Your task to perform on an android device: see tabs open on other devices in the chrome app Image 0: 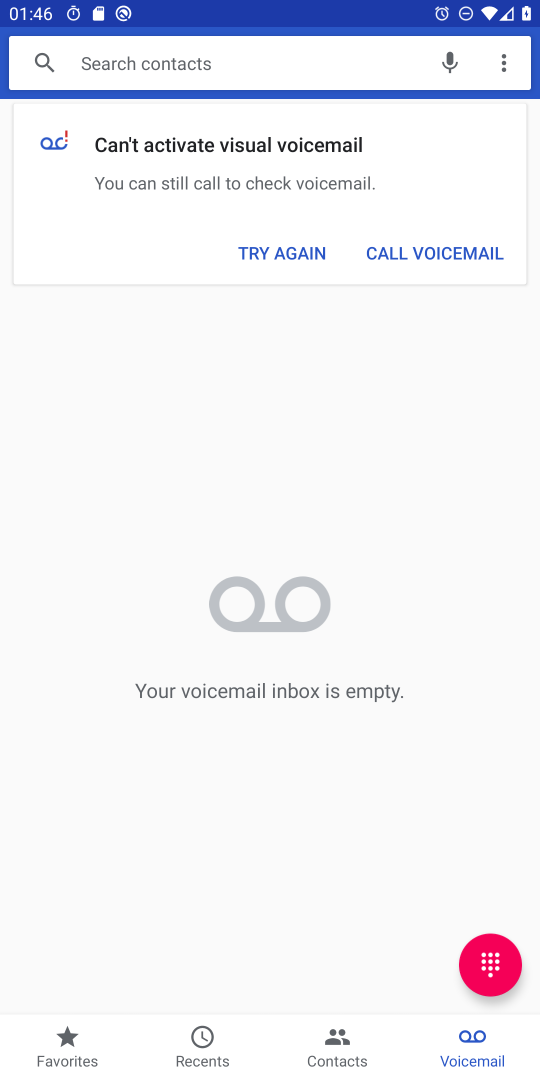
Step 0: press home button
Your task to perform on an android device: see tabs open on other devices in the chrome app Image 1: 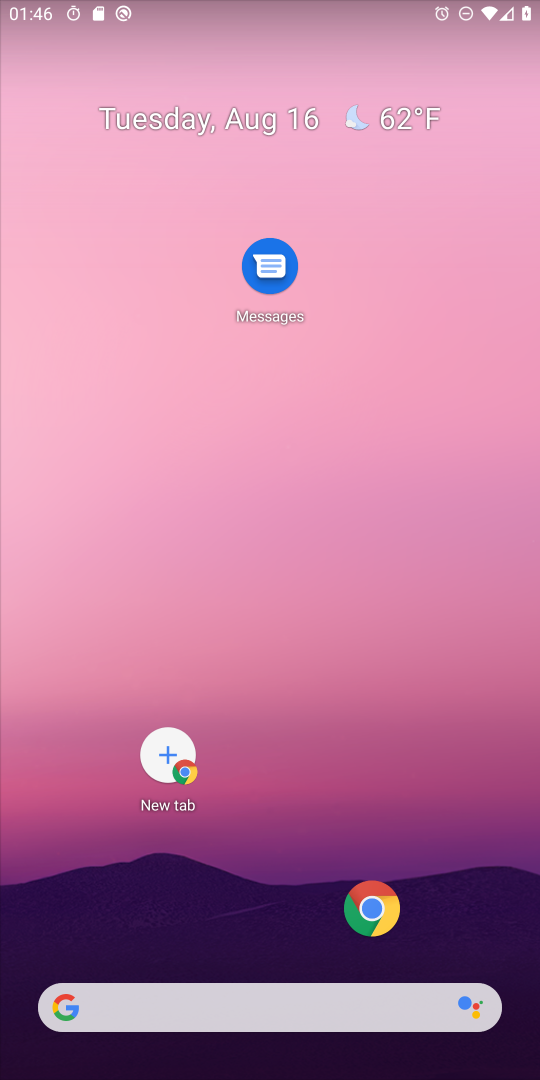
Step 1: click (394, 900)
Your task to perform on an android device: see tabs open on other devices in the chrome app Image 2: 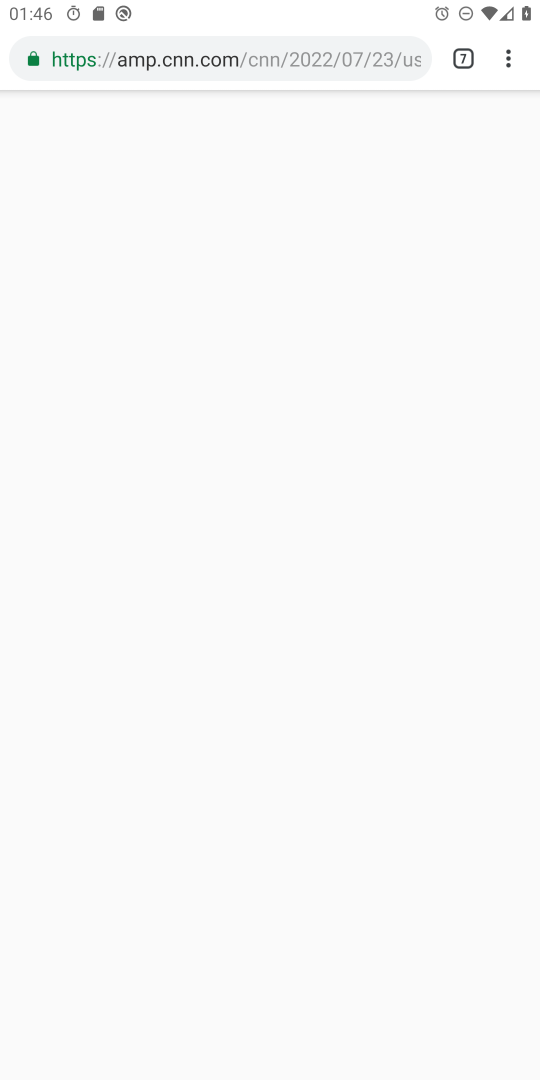
Step 2: click (509, 62)
Your task to perform on an android device: see tabs open on other devices in the chrome app Image 3: 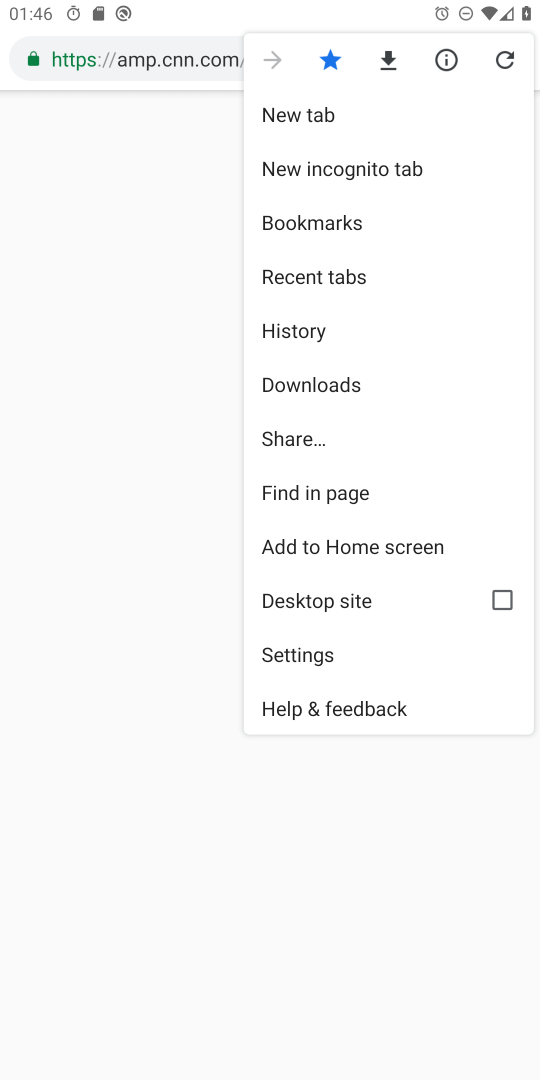
Step 3: click (331, 284)
Your task to perform on an android device: see tabs open on other devices in the chrome app Image 4: 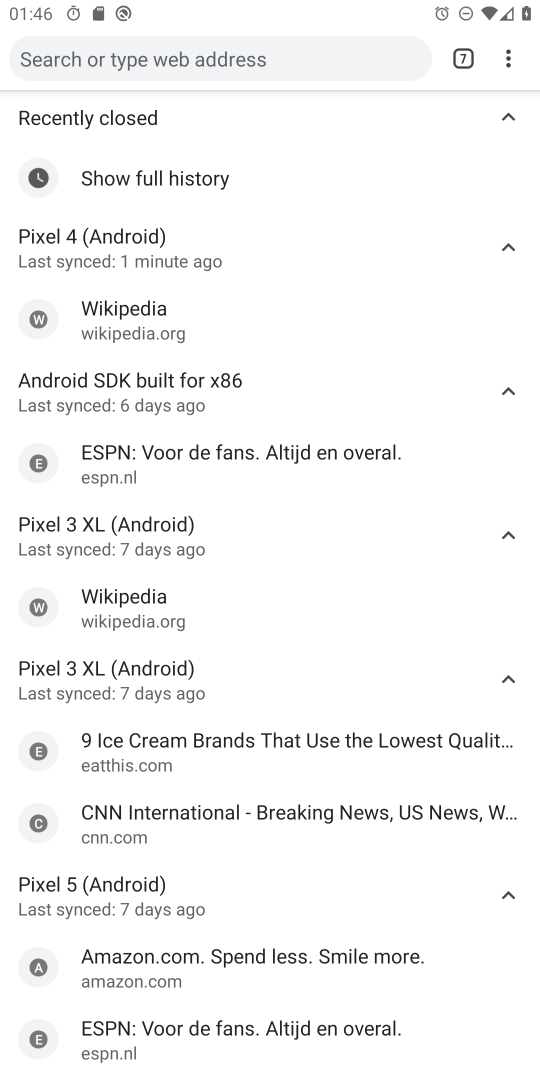
Step 4: task complete